Your task to perform on an android device: Check the weather Image 0: 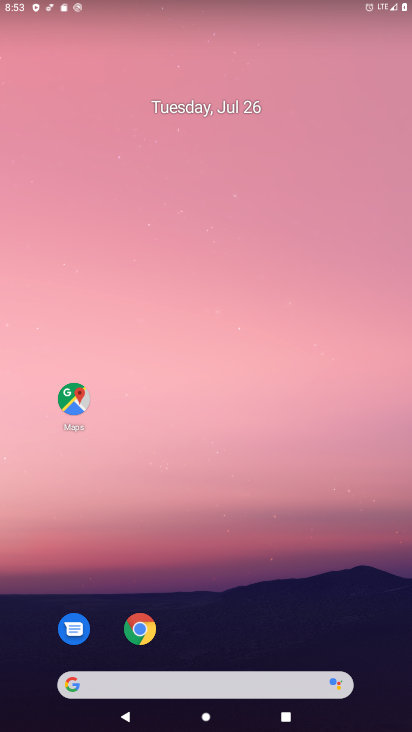
Step 0: click (215, 680)
Your task to perform on an android device: Check the weather Image 1: 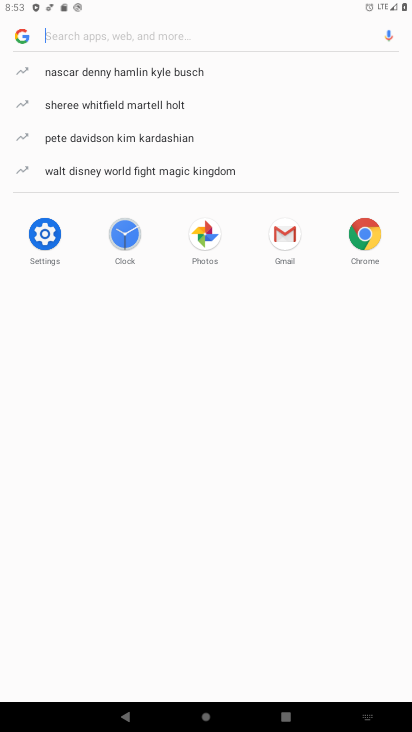
Step 1: type "weather"
Your task to perform on an android device: Check the weather Image 2: 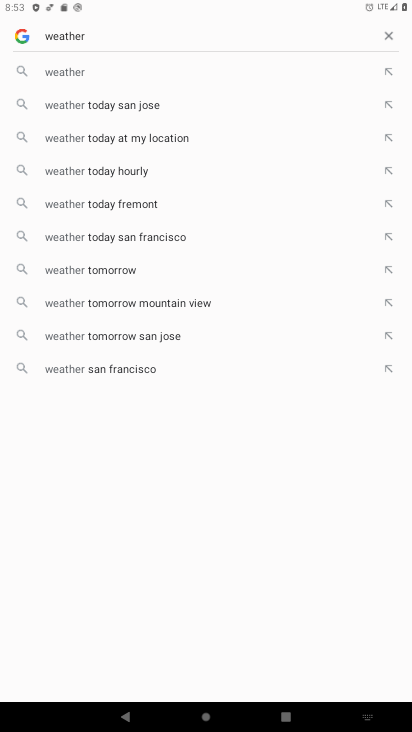
Step 2: click (61, 76)
Your task to perform on an android device: Check the weather Image 3: 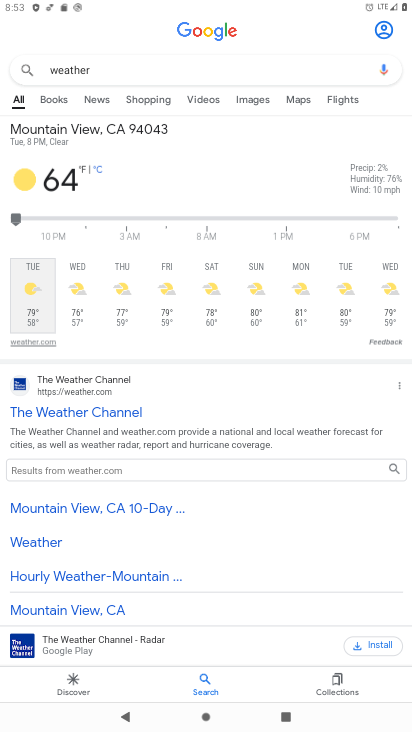
Step 3: task complete